Your task to perform on an android device: Open battery settings Image 0: 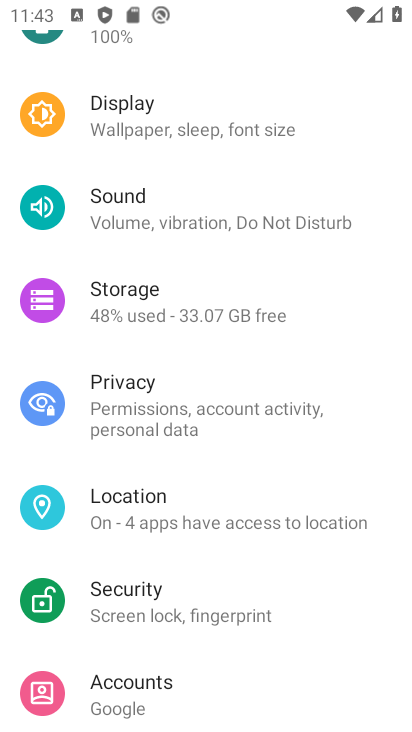
Step 0: drag from (129, 616) to (208, 591)
Your task to perform on an android device: Open battery settings Image 1: 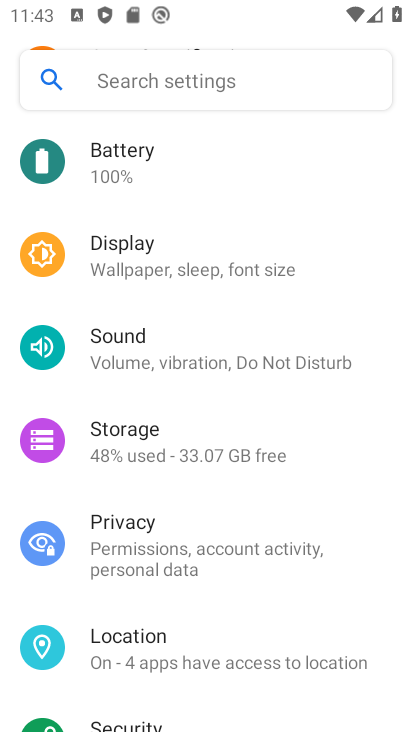
Step 1: click (181, 176)
Your task to perform on an android device: Open battery settings Image 2: 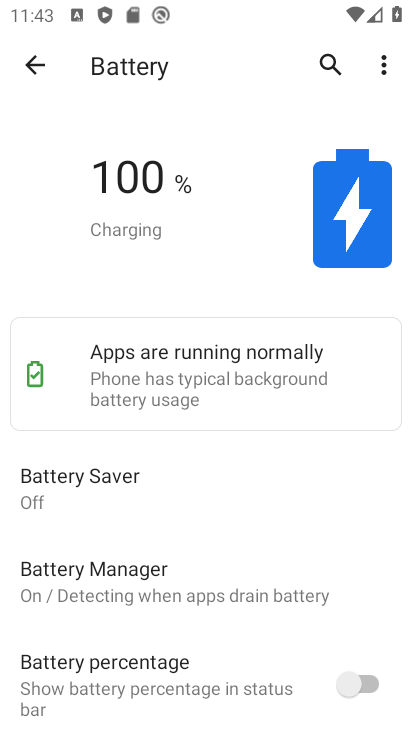
Step 2: task complete